Your task to perform on an android device: change the clock style Image 0: 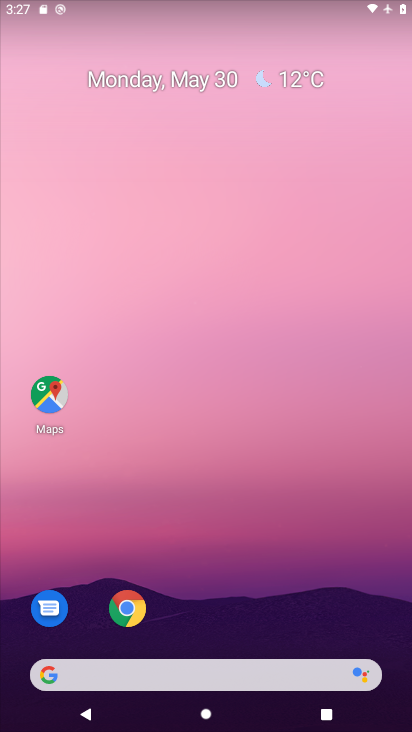
Step 0: drag from (268, 359) to (177, 36)
Your task to perform on an android device: change the clock style Image 1: 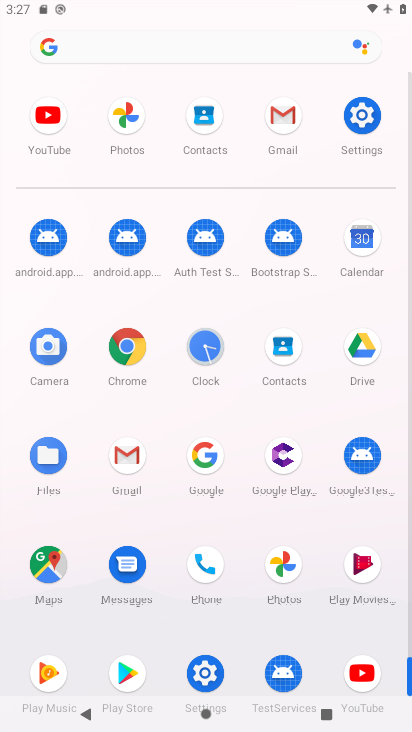
Step 1: click (208, 345)
Your task to perform on an android device: change the clock style Image 2: 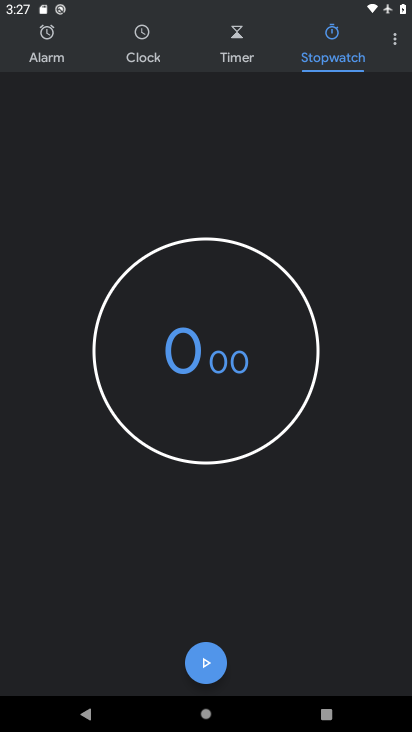
Step 2: click (397, 49)
Your task to perform on an android device: change the clock style Image 3: 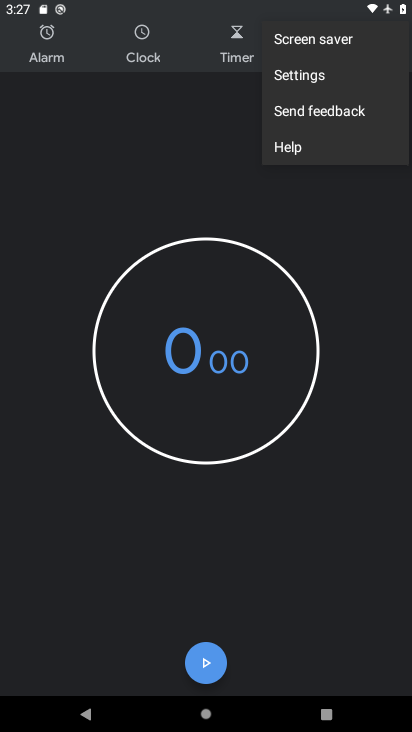
Step 3: click (325, 76)
Your task to perform on an android device: change the clock style Image 4: 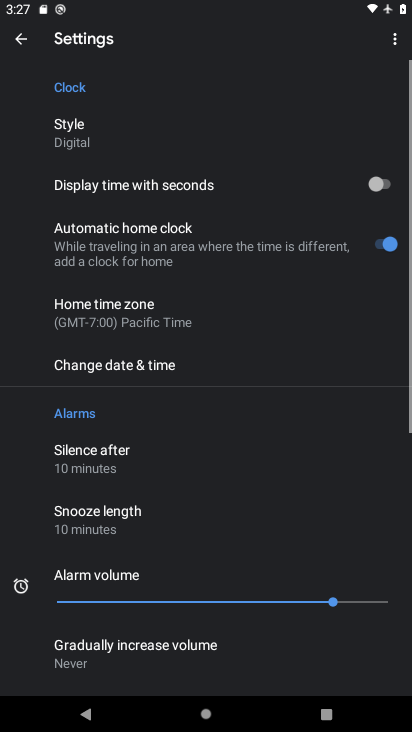
Step 4: click (142, 120)
Your task to perform on an android device: change the clock style Image 5: 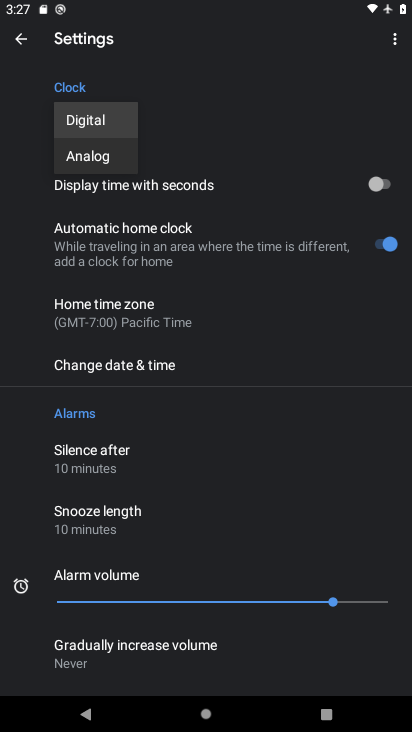
Step 5: click (107, 150)
Your task to perform on an android device: change the clock style Image 6: 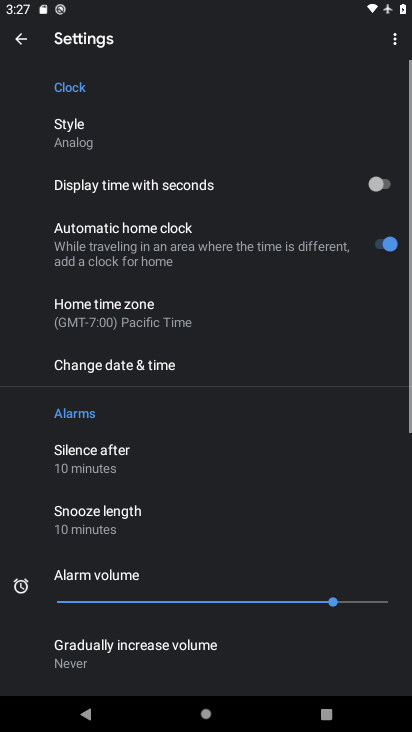
Step 6: task complete